Your task to perform on an android device: uninstall "Google Calendar" Image 0: 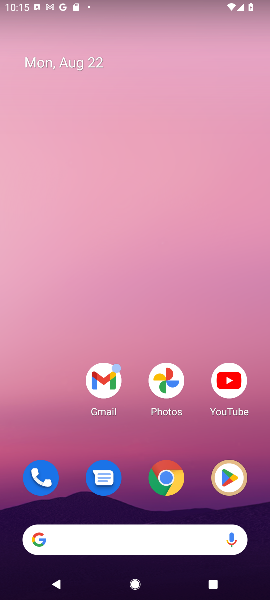
Step 0: drag from (141, 512) to (264, 29)
Your task to perform on an android device: uninstall "Google Calendar" Image 1: 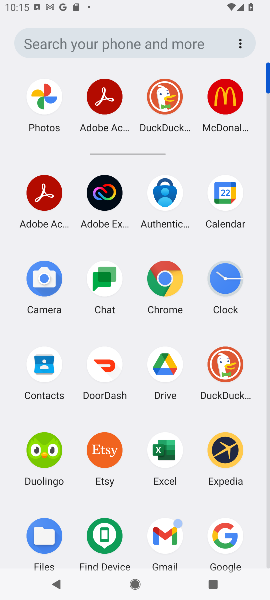
Step 1: drag from (195, 520) to (195, 329)
Your task to perform on an android device: uninstall "Google Calendar" Image 2: 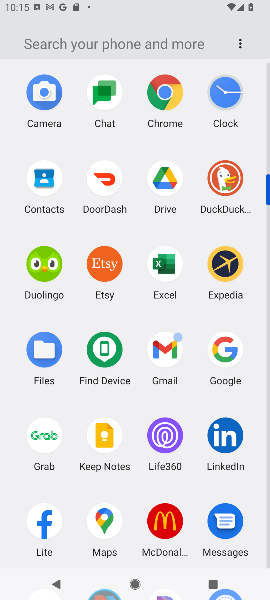
Step 2: drag from (62, 494) to (94, 205)
Your task to perform on an android device: uninstall "Google Calendar" Image 3: 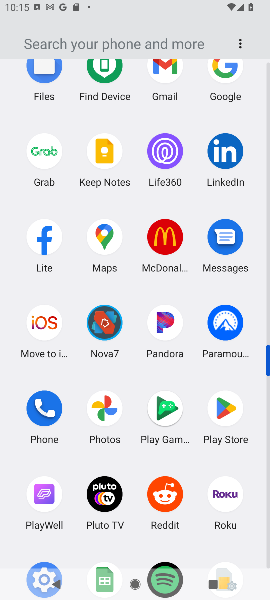
Step 3: click (231, 405)
Your task to perform on an android device: uninstall "Google Calendar" Image 4: 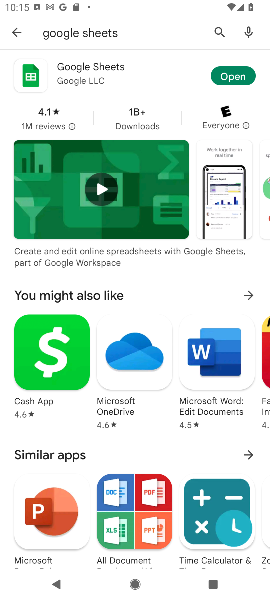
Step 4: click (208, 32)
Your task to perform on an android device: uninstall "Google Calendar" Image 5: 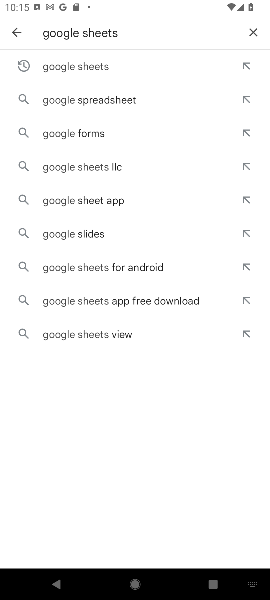
Step 5: click (251, 35)
Your task to perform on an android device: uninstall "Google Calendar" Image 6: 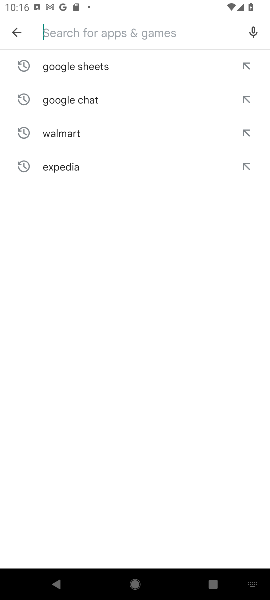
Step 6: type "google calnedar"
Your task to perform on an android device: uninstall "Google Calendar" Image 7: 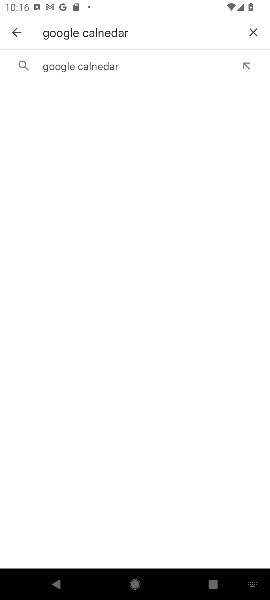
Step 7: click (161, 56)
Your task to perform on an android device: uninstall "Google Calendar" Image 8: 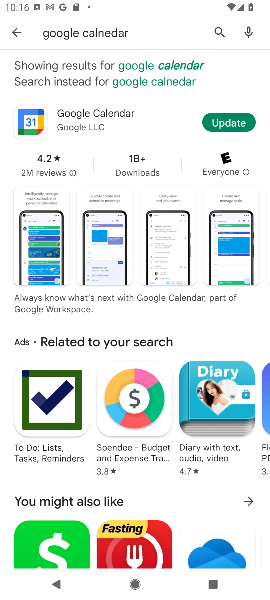
Step 8: click (207, 130)
Your task to perform on an android device: uninstall "Google Calendar" Image 9: 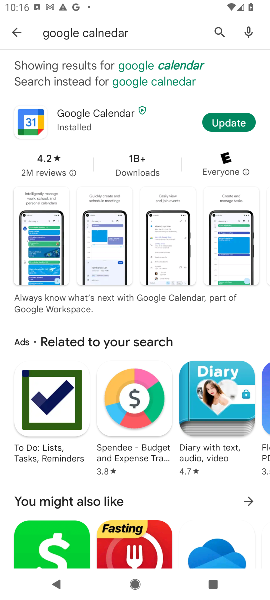
Step 9: click (207, 130)
Your task to perform on an android device: uninstall "Google Calendar" Image 10: 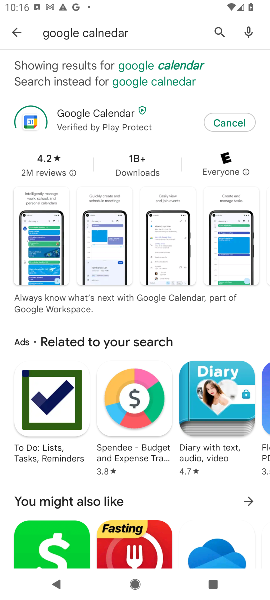
Step 10: task complete